Your task to perform on an android device: all mails in gmail Image 0: 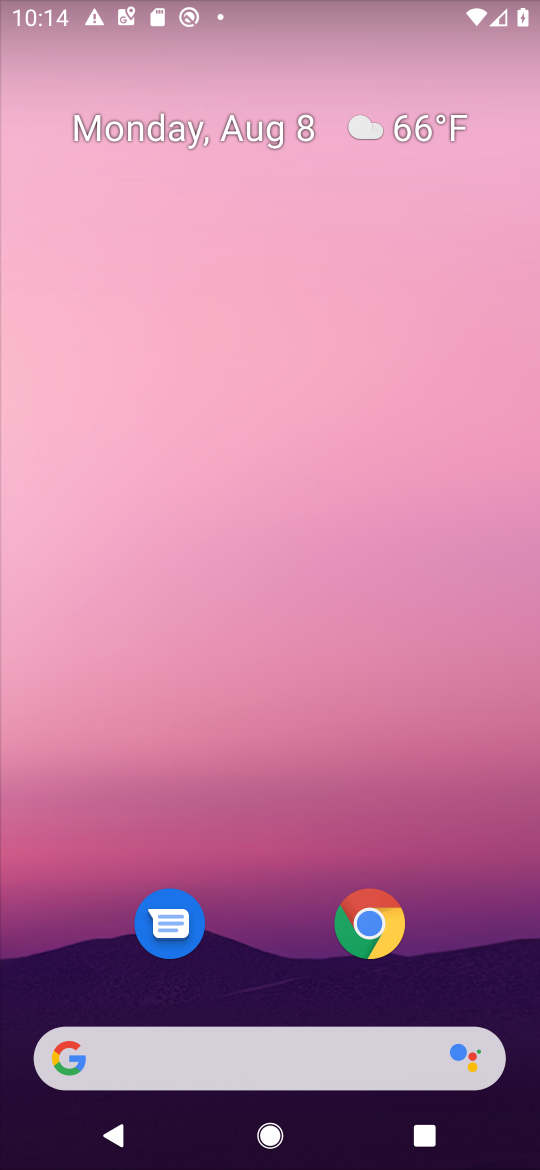
Step 0: drag from (37, 1125) to (153, 414)
Your task to perform on an android device: all mails in gmail Image 1: 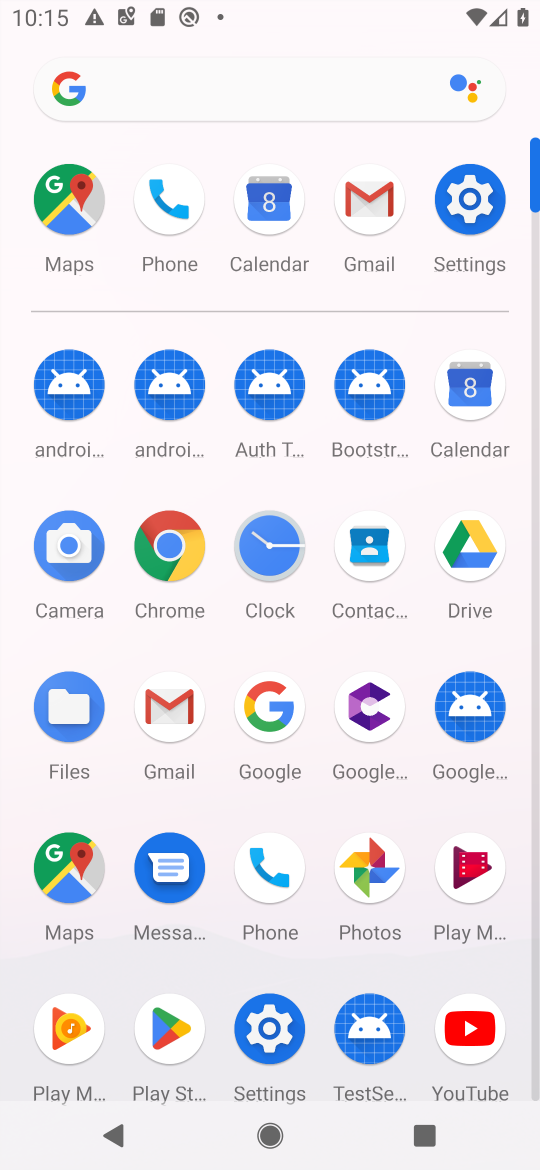
Step 1: click (165, 726)
Your task to perform on an android device: all mails in gmail Image 2: 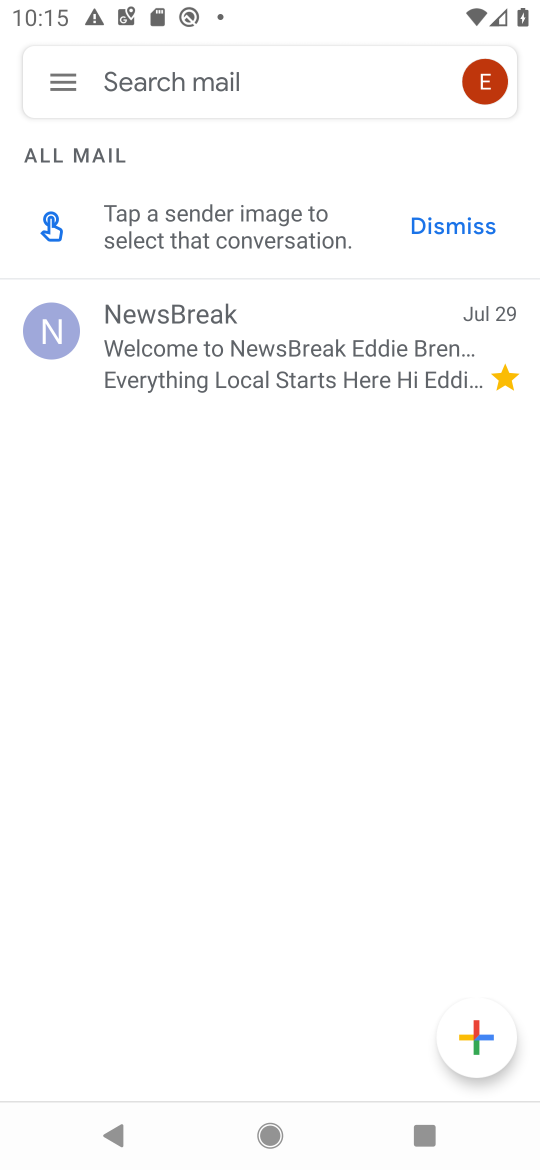
Step 2: click (70, 86)
Your task to perform on an android device: all mails in gmail Image 3: 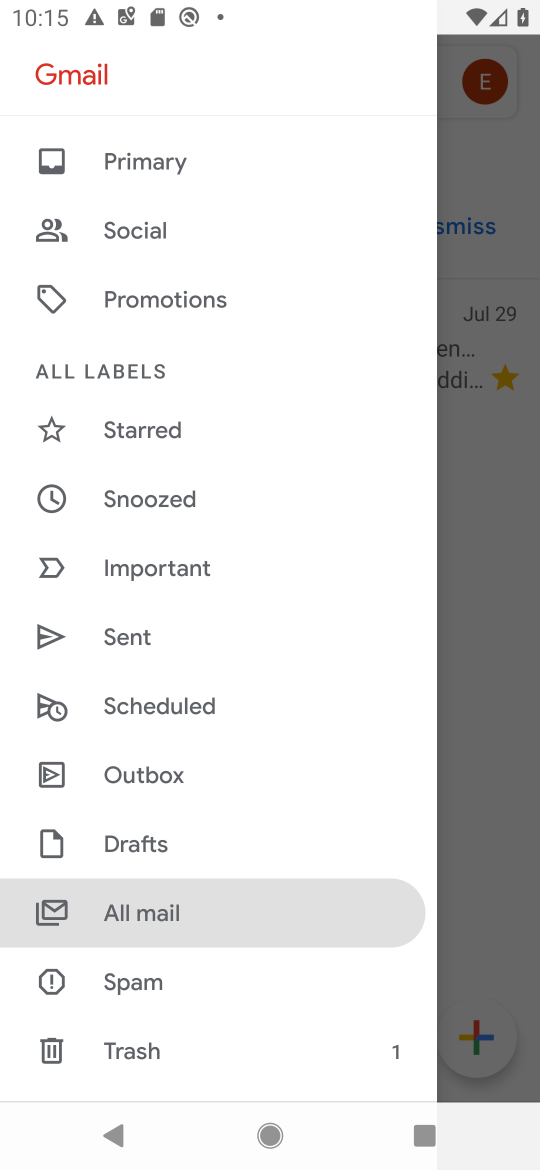
Step 3: click (229, 907)
Your task to perform on an android device: all mails in gmail Image 4: 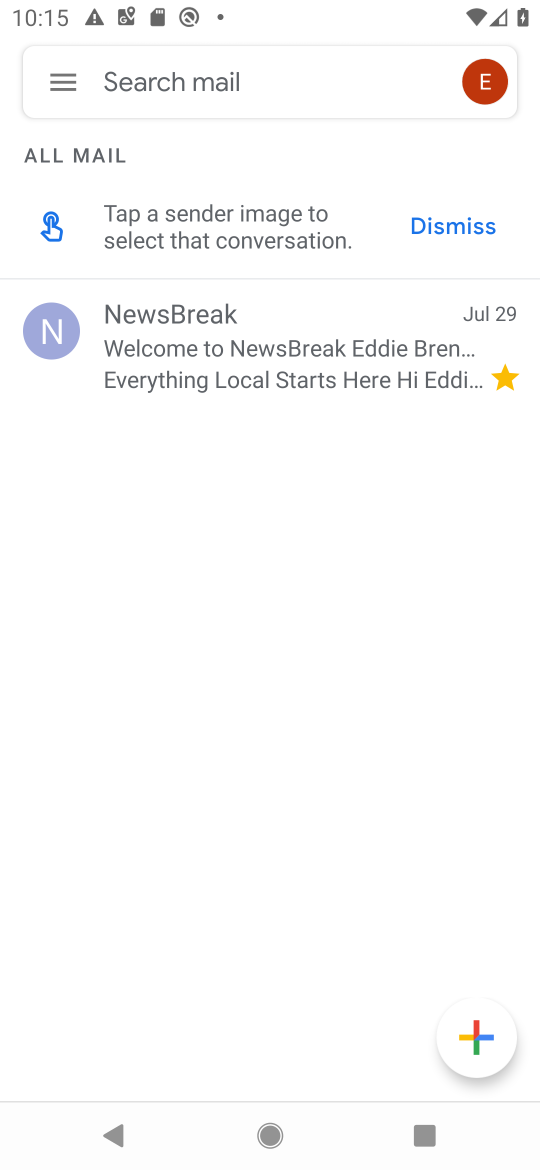
Step 4: task complete